Your task to perform on an android device: Go to settings Image 0: 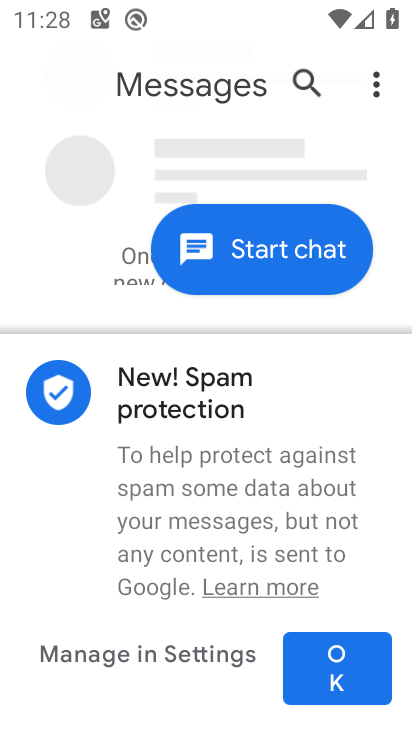
Step 0: press home button
Your task to perform on an android device: Go to settings Image 1: 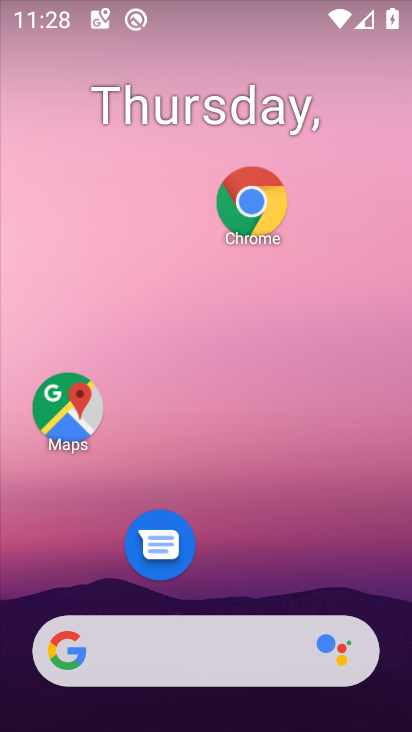
Step 1: drag from (241, 532) to (250, 30)
Your task to perform on an android device: Go to settings Image 2: 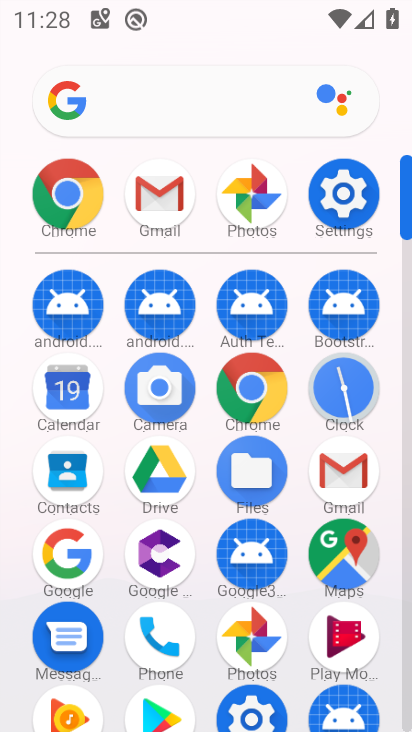
Step 2: click (332, 218)
Your task to perform on an android device: Go to settings Image 3: 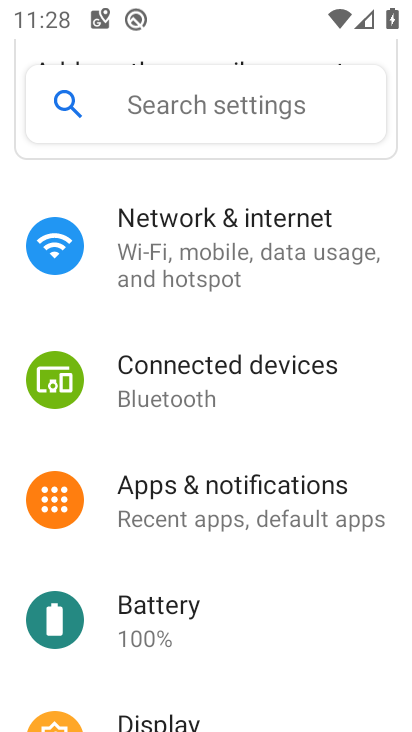
Step 3: task complete